Your task to perform on an android device: find photos in the google photos app Image 0: 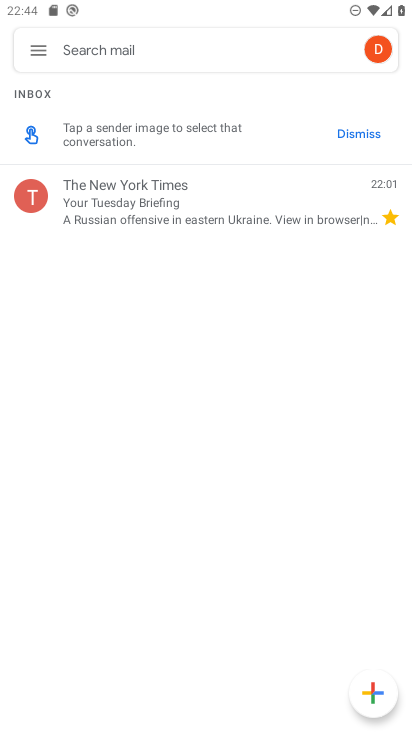
Step 0: press home button
Your task to perform on an android device: find photos in the google photos app Image 1: 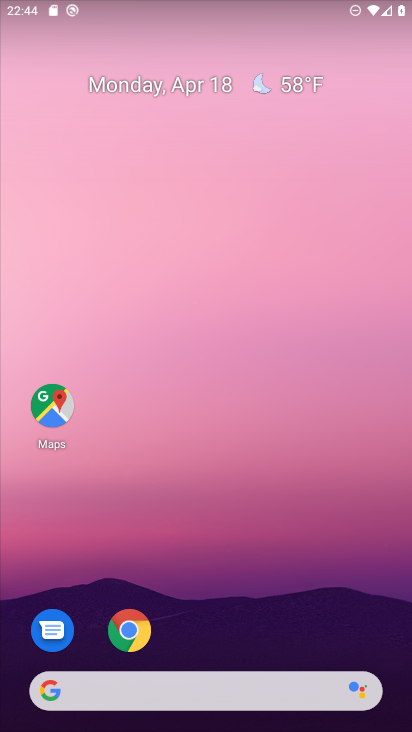
Step 1: drag from (207, 659) to (167, 11)
Your task to perform on an android device: find photos in the google photos app Image 2: 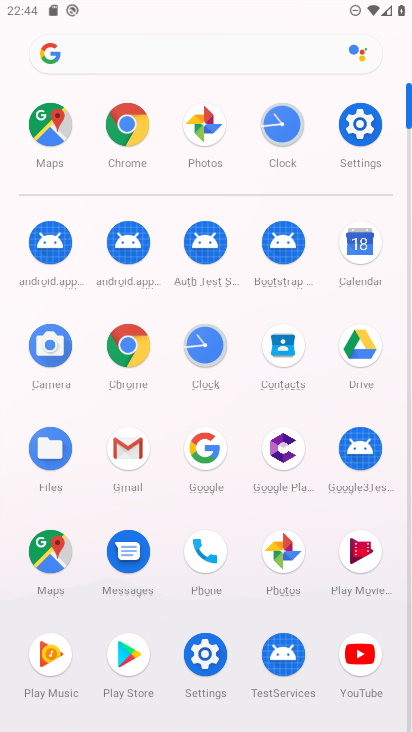
Step 2: click (286, 567)
Your task to perform on an android device: find photos in the google photos app Image 3: 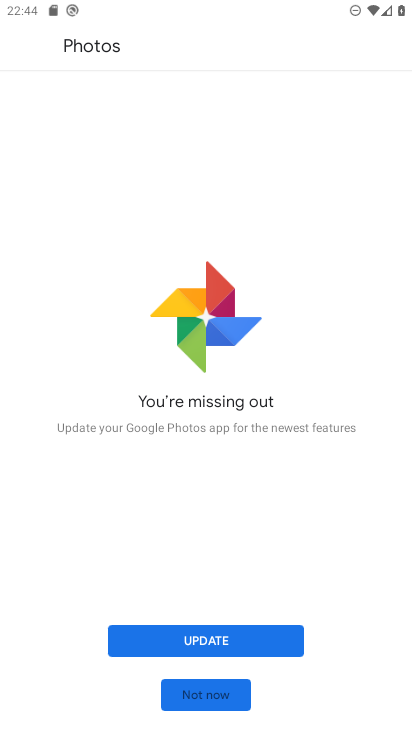
Step 3: click (201, 697)
Your task to perform on an android device: find photos in the google photos app Image 4: 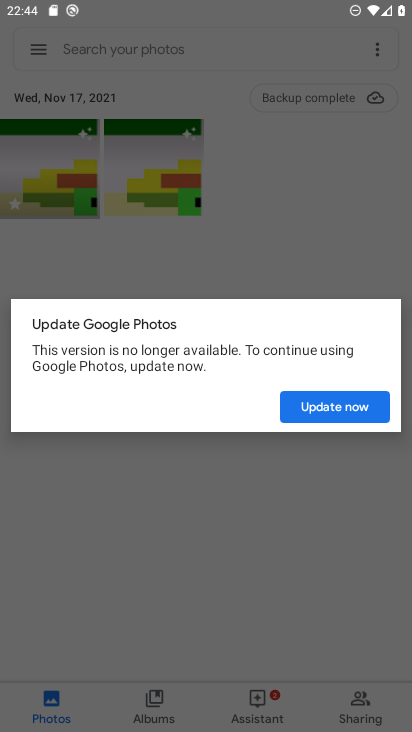
Step 4: click (295, 503)
Your task to perform on an android device: find photos in the google photos app Image 5: 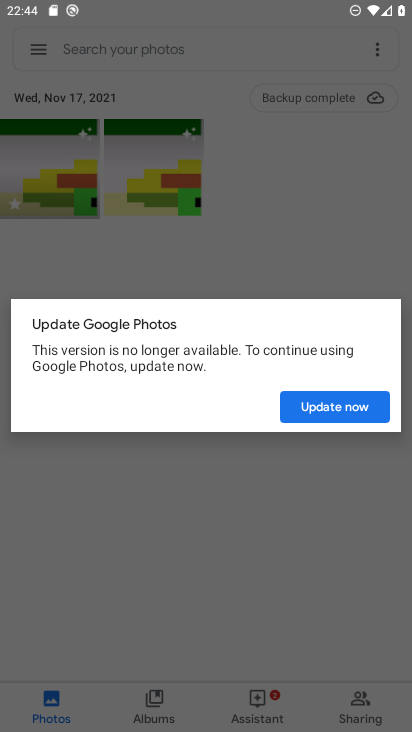
Step 5: click (279, 174)
Your task to perform on an android device: find photos in the google photos app Image 6: 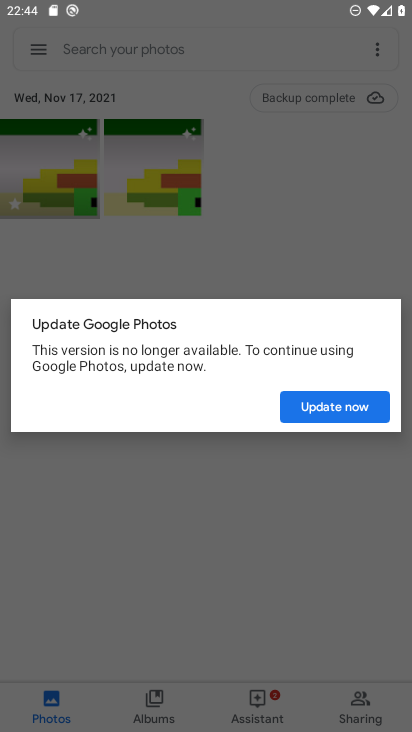
Step 6: click (327, 401)
Your task to perform on an android device: find photos in the google photos app Image 7: 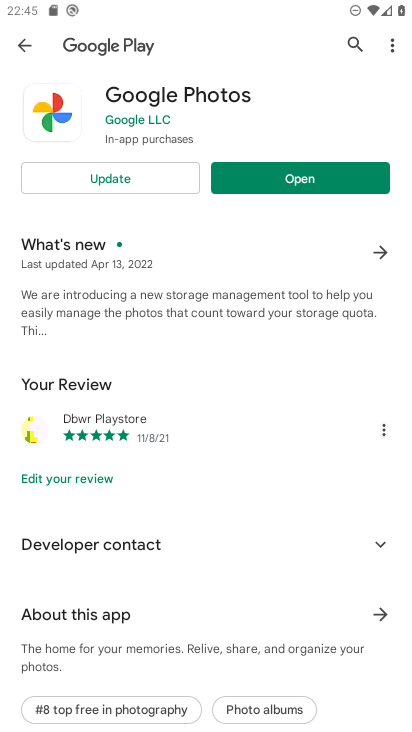
Step 7: click (259, 174)
Your task to perform on an android device: find photos in the google photos app Image 8: 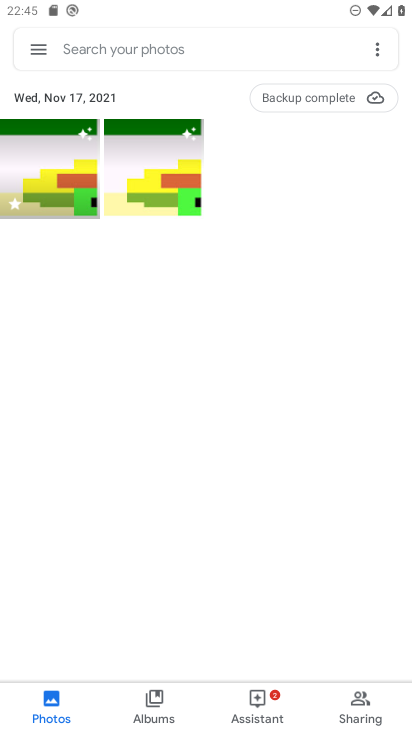
Step 8: task complete